Your task to perform on an android device: turn on wifi Image 0: 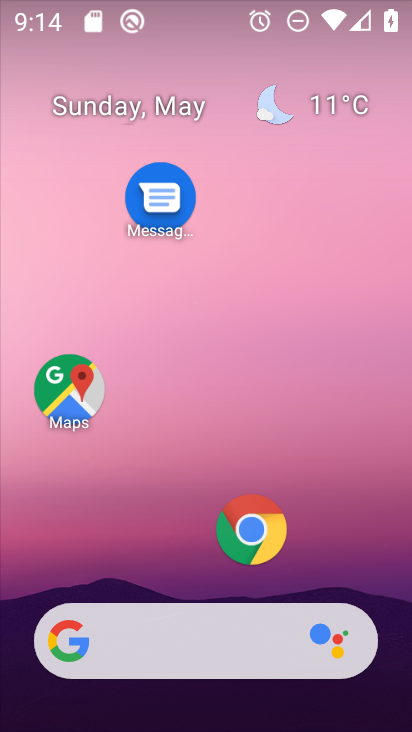
Step 0: drag from (194, 580) to (260, 4)
Your task to perform on an android device: turn on wifi Image 1: 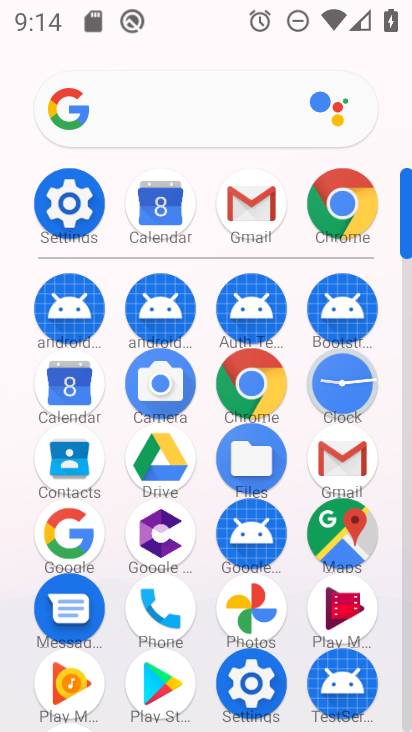
Step 1: click (66, 195)
Your task to perform on an android device: turn on wifi Image 2: 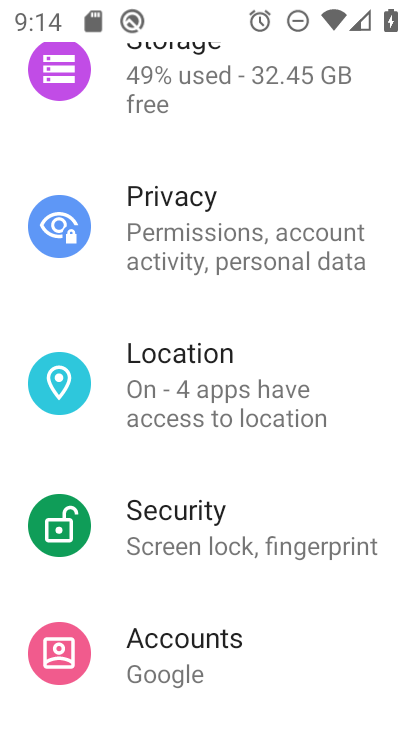
Step 2: drag from (212, 136) to (223, 685)
Your task to perform on an android device: turn on wifi Image 3: 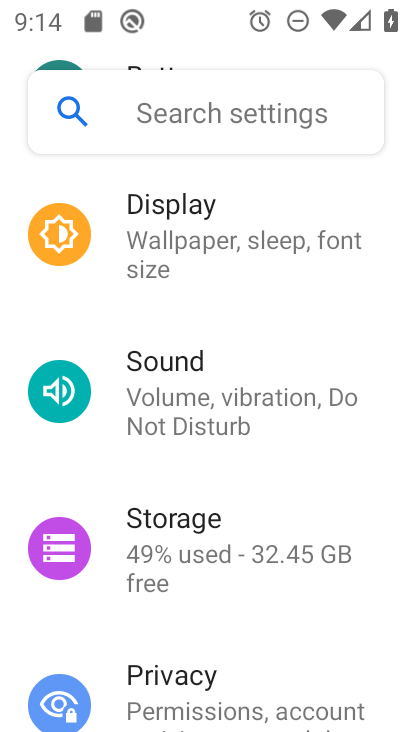
Step 3: drag from (221, 196) to (206, 727)
Your task to perform on an android device: turn on wifi Image 4: 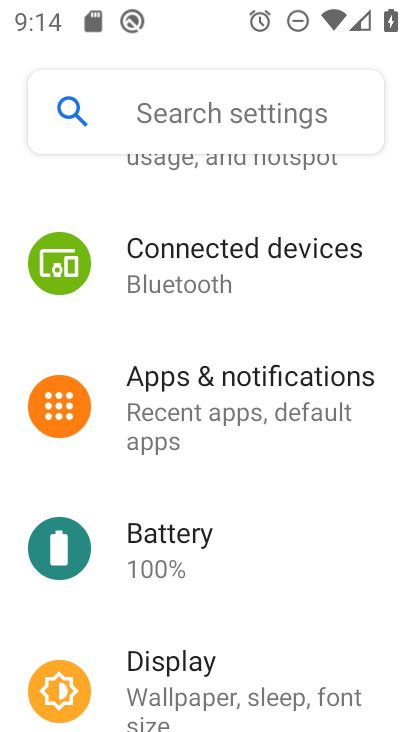
Step 4: drag from (216, 207) to (226, 710)
Your task to perform on an android device: turn on wifi Image 5: 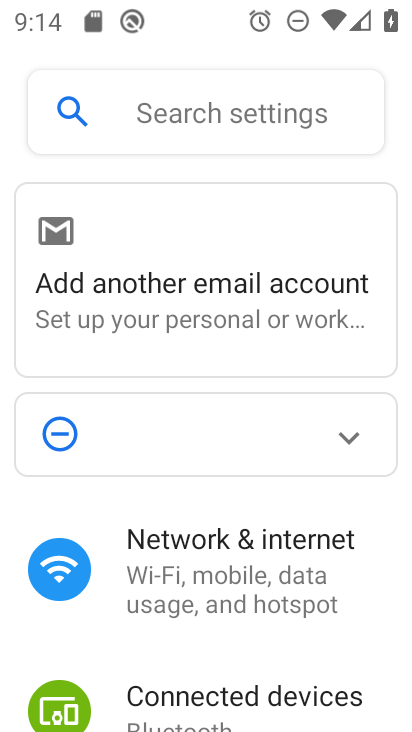
Step 5: click (171, 575)
Your task to perform on an android device: turn on wifi Image 6: 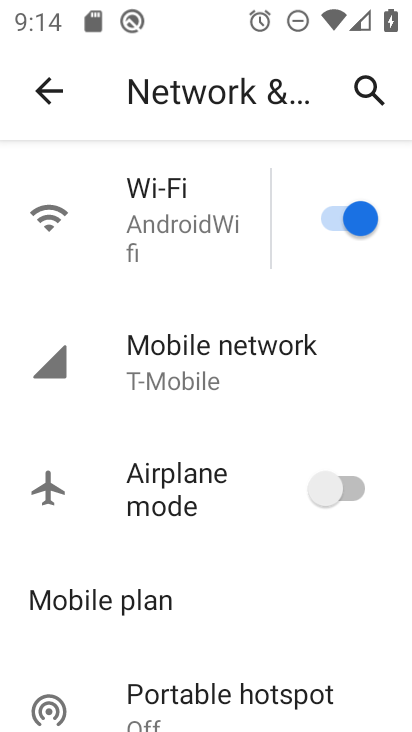
Step 6: click (209, 202)
Your task to perform on an android device: turn on wifi Image 7: 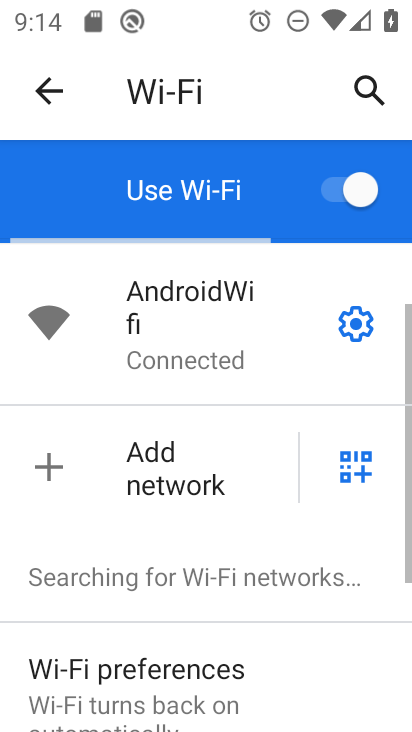
Step 7: task complete